Your task to perform on an android device: Open display settings Image 0: 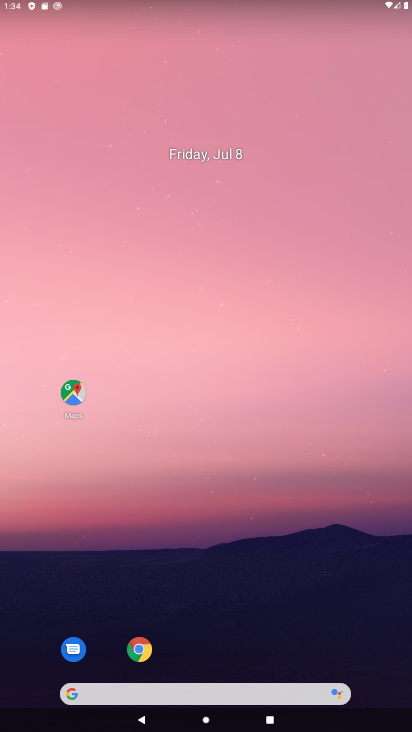
Step 0: drag from (296, 611) to (278, 97)
Your task to perform on an android device: Open display settings Image 1: 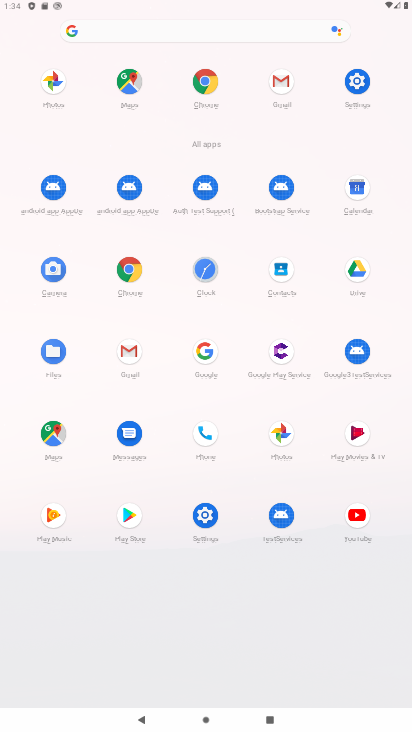
Step 1: click (364, 78)
Your task to perform on an android device: Open display settings Image 2: 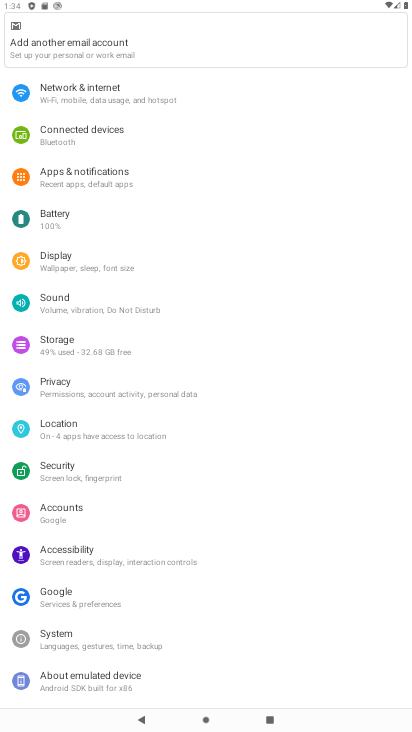
Step 2: click (77, 264)
Your task to perform on an android device: Open display settings Image 3: 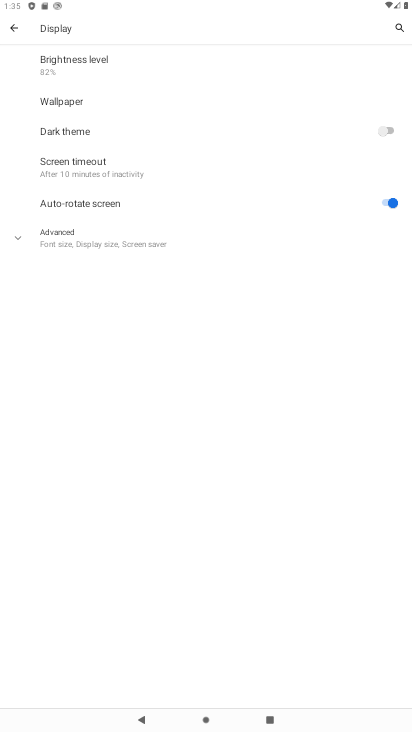
Step 3: task complete